Your task to perform on an android device: open wifi settings Image 0: 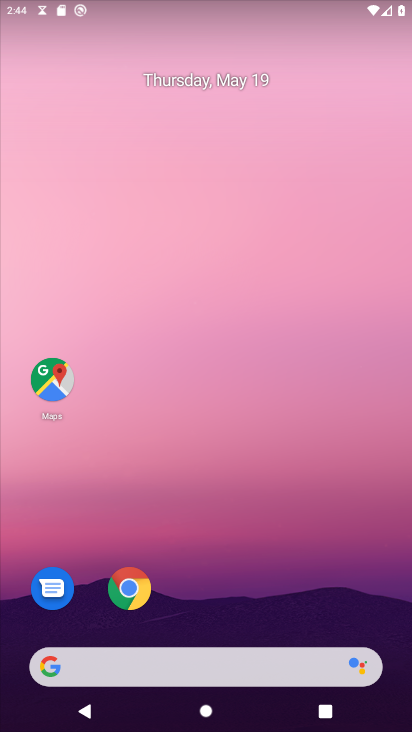
Step 0: drag from (403, 72) to (328, 167)
Your task to perform on an android device: open wifi settings Image 1: 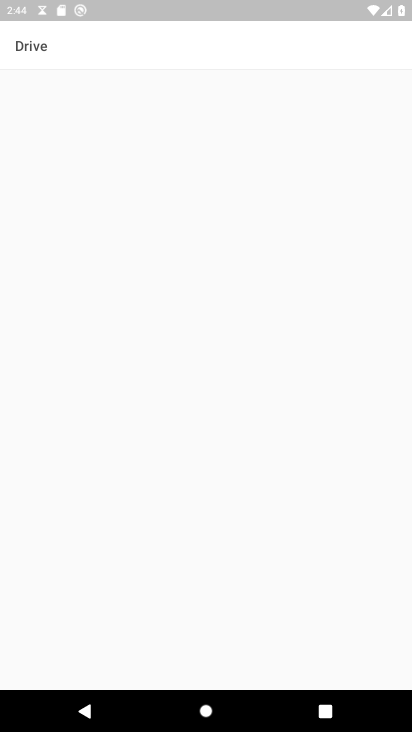
Step 1: press home button
Your task to perform on an android device: open wifi settings Image 2: 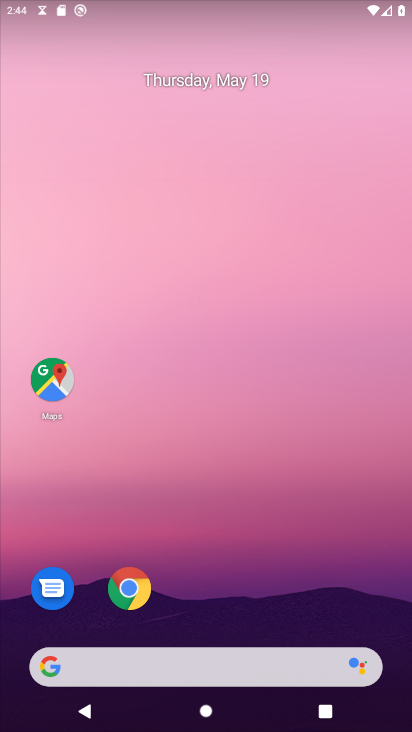
Step 2: press home button
Your task to perform on an android device: open wifi settings Image 3: 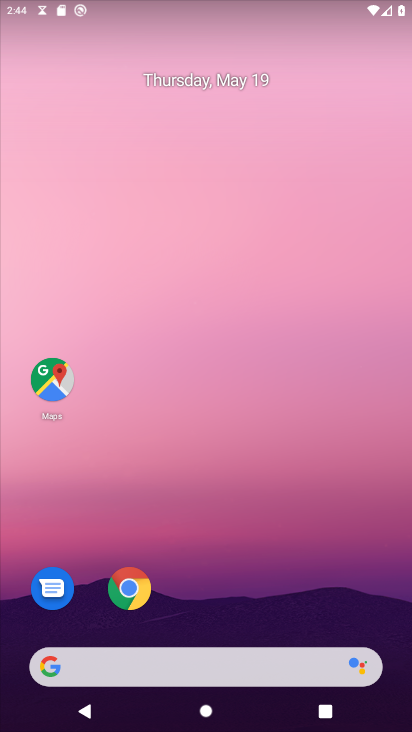
Step 3: press home button
Your task to perform on an android device: open wifi settings Image 4: 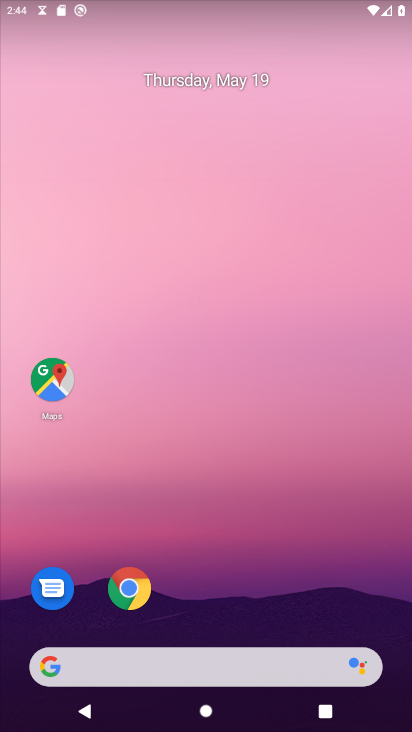
Step 4: drag from (117, 8) to (223, 667)
Your task to perform on an android device: open wifi settings Image 5: 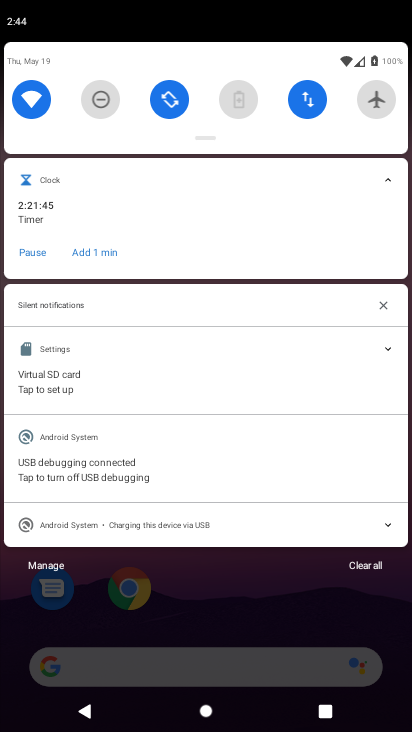
Step 5: click (37, 109)
Your task to perform on an android device: open wifi settings Image 6: 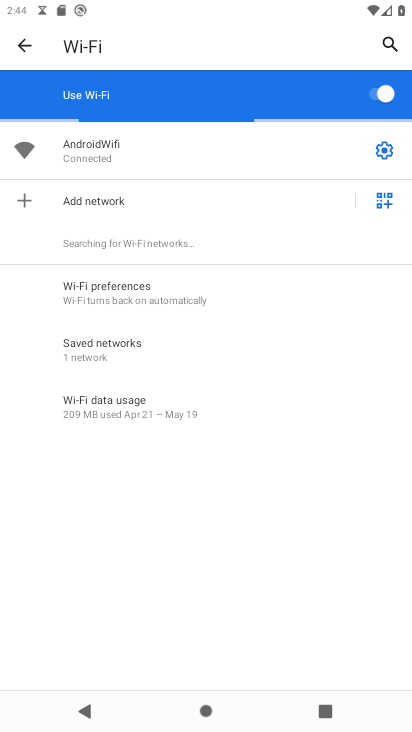
Step 6: task complete